Your task to perform on an android device: turn on javascript in the chrome app Image 0: 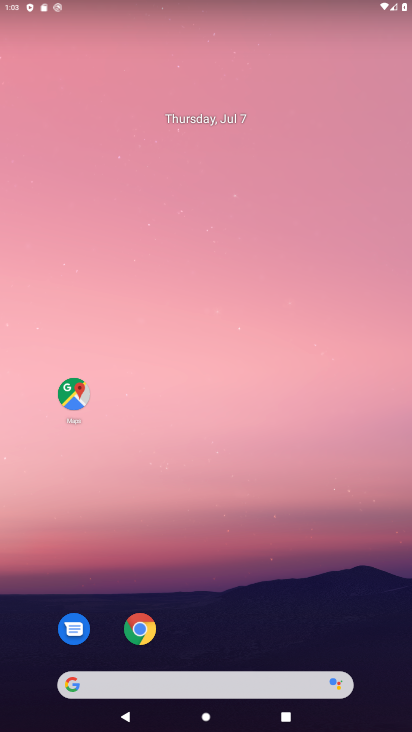
Step 0: drag from (263, 619) to (303, 29)
Your task to perform on an android device: turn on javascript in the chrome app Image 1: 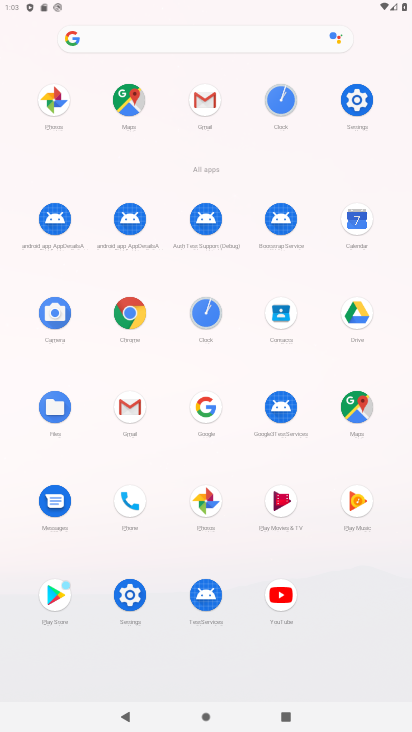
Step 1: click (136, 318)
Your task to perform on an android device: turn on javascript in the chrome app Image 2: 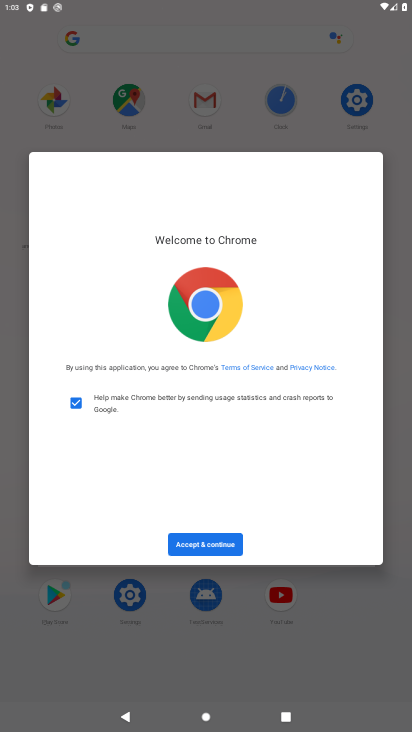
Step 2: click (230, 544)
Your task to perform on an android device: turn on javascript in the chrome app Image 3: 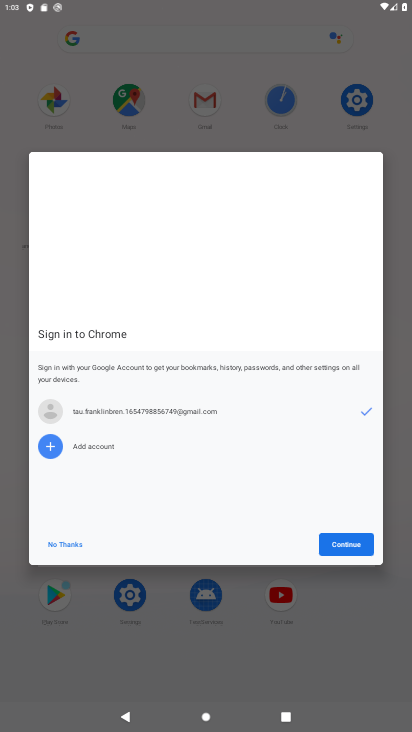
Step 3: click (356, 536)
Your task to perform on an android device: turn on javascript in the chrome app Image 4: 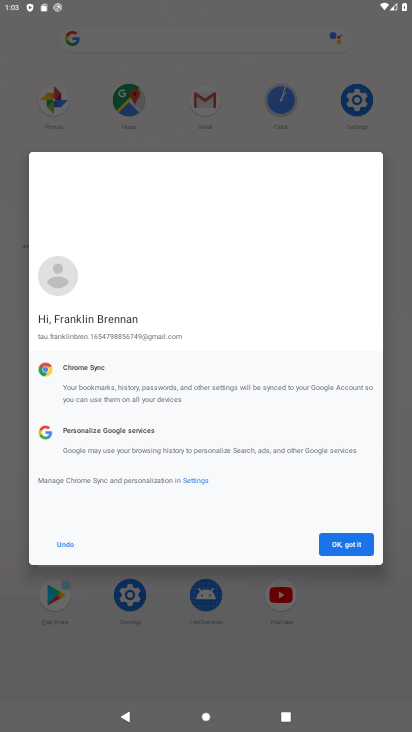
Step 4: click (353, 539)
Your task to perform on an android device: turn on javascript in the chrome app Image 5: 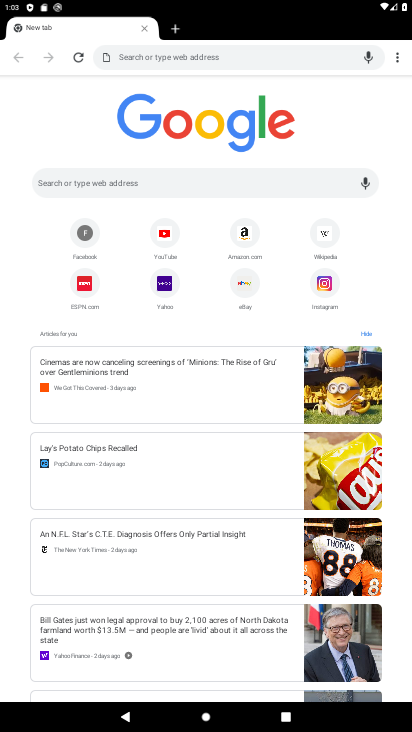
Step 5: click (396, 56)
Your task to perform on an android device: turn on javascript in the chrome app Image 6: 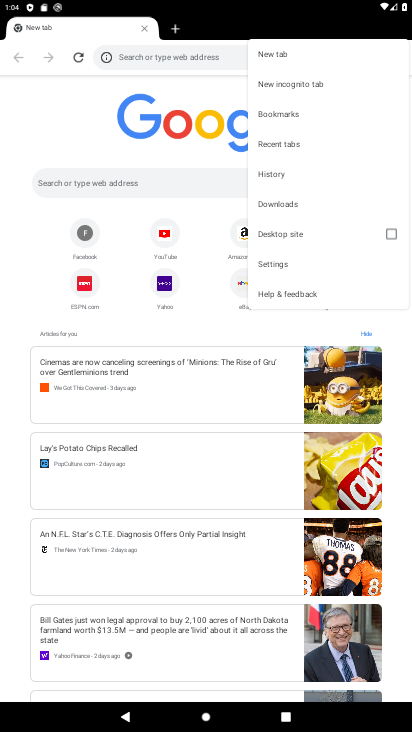
Step 6: click (285, 260)
Your task to perform on an android device: turn on javascript in the chrome app Image 7: 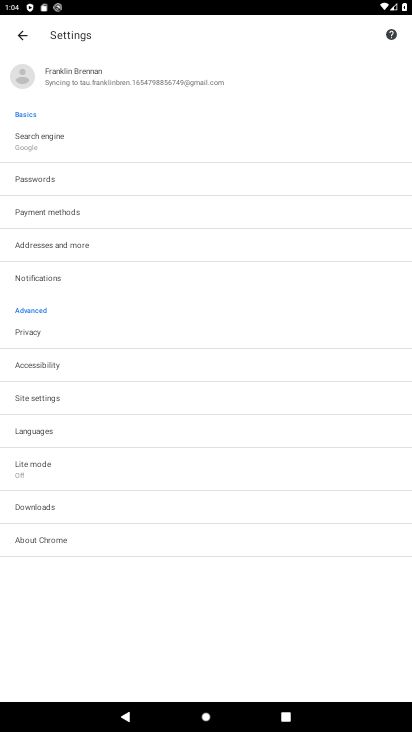
Step 7: click (55, 398)
Your task to perform on an android device: turn on javascript in the chrome app Image 8: 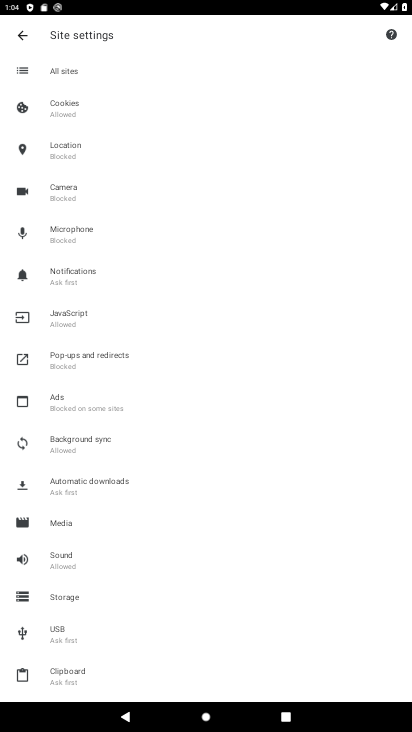
Step 8: click (105, 326)
Your task to perform on an android device: turn on javascript in the chrome app Image 9: 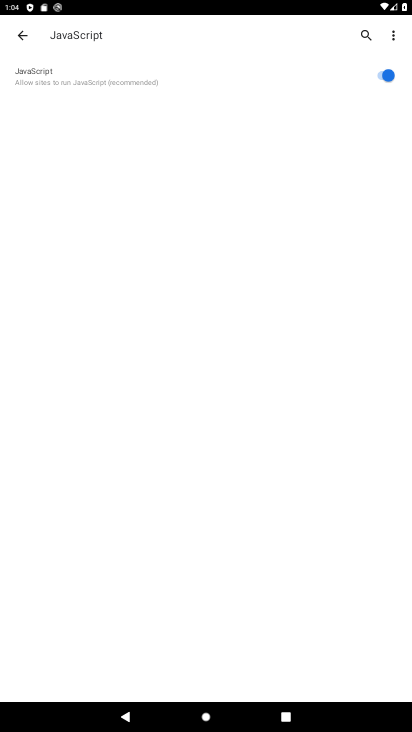
Step 9: task complete